Your task to perform on an android device: Go to eBay Image 0: 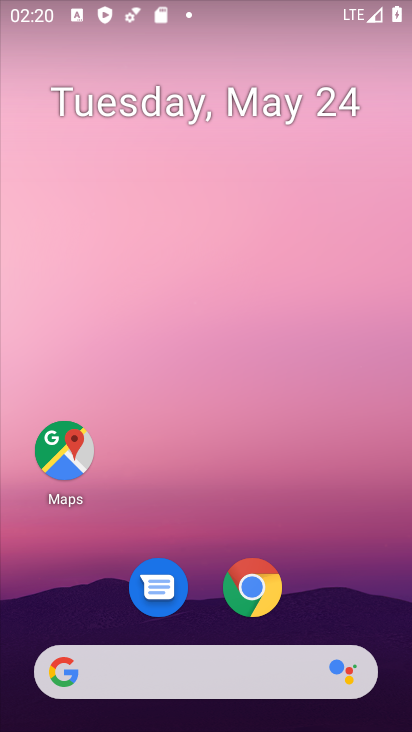
Step 0: click (142, 677)
Your task to perform on an android device: Go to eBay Image 1: 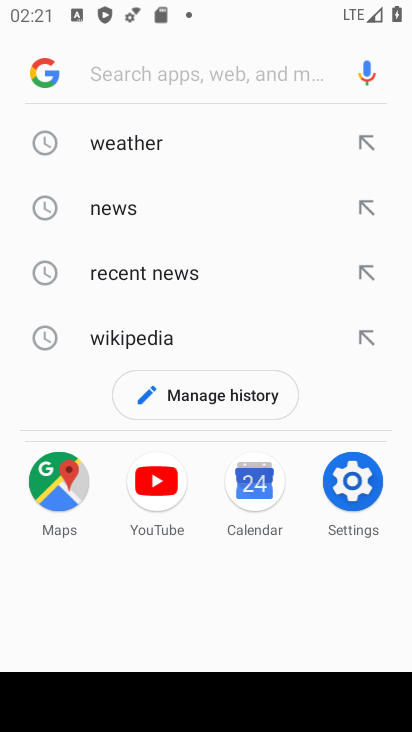
Step 1: type "ebay"
Your task to perform on an android device: Go to eBay Image 2: 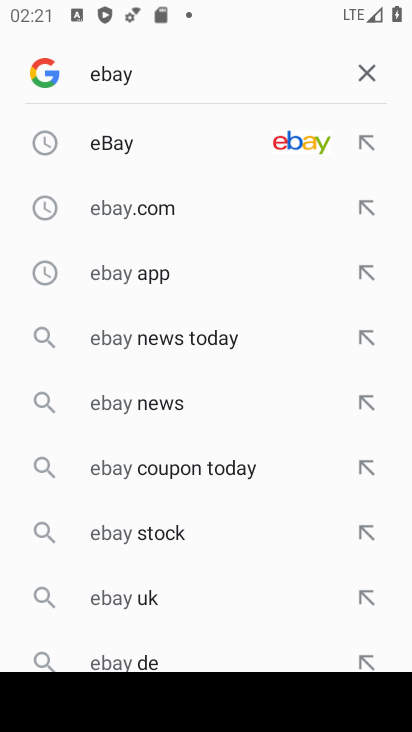
Step 2: click (272, 137)
Your task to perform on an android device: Go to eBay Image 3: 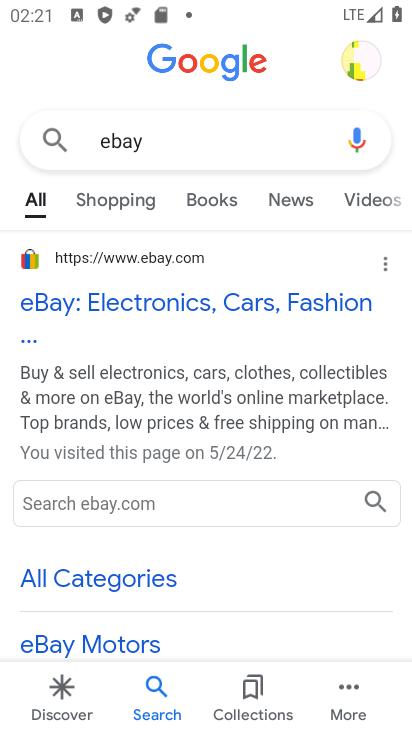
Step 3: click (154, 257)
Your task to perform on an android device: Go to eBay Image 4: 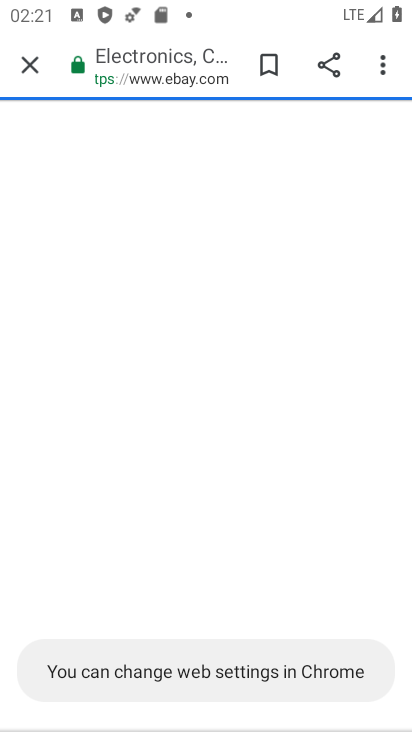
Step 4: task complete